Your task to perform on an android device: check battery use Image 0: 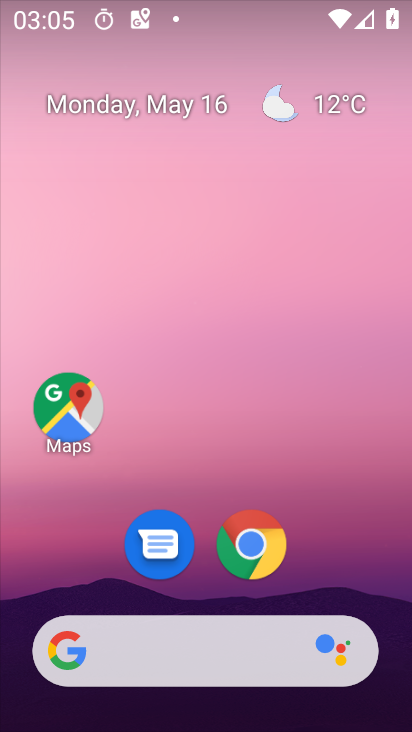
Step 0: drag from (217, 719) to (213, 224)
Your task to perform on an android device: check battery use Image 1: 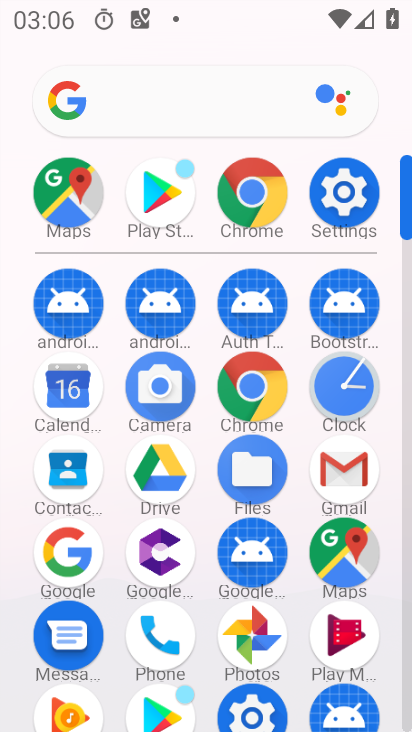
Step 1: click (345, 192)
Your task to perform on an android device: check battery use Image 2: 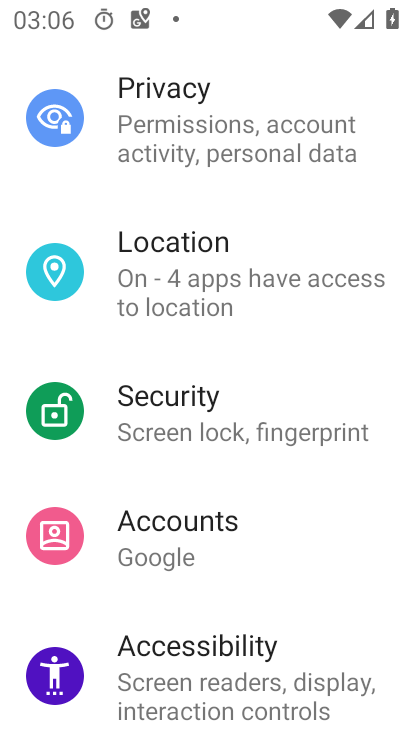
Step 2: drag from (216, 184) to (190, 582)
Your task to perform on an android device: check battery use Image 3: 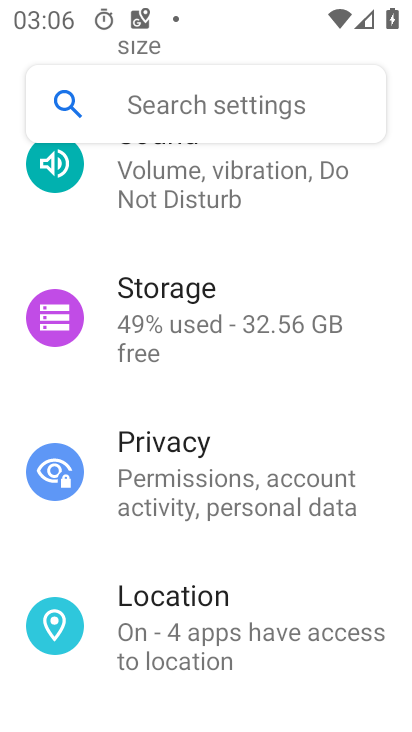
Step 3: drag from (223, 230) to (229, 506)
Your task to perform on an android device: check battery use Image 4: 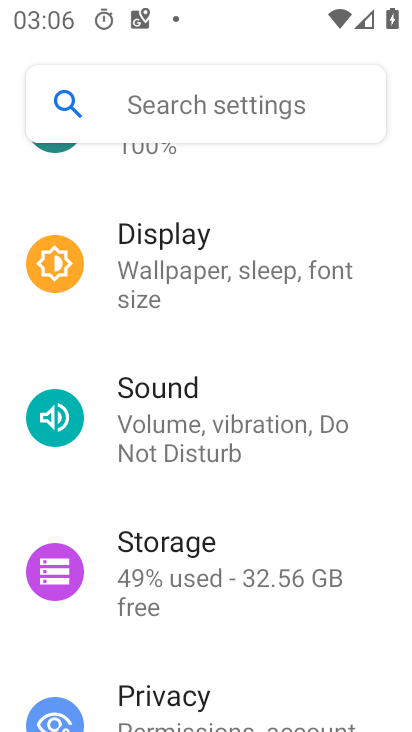
Step 4: drag from (239, 178) to (231, 515)
Your task to perform on an android device: check battery use Image 5: 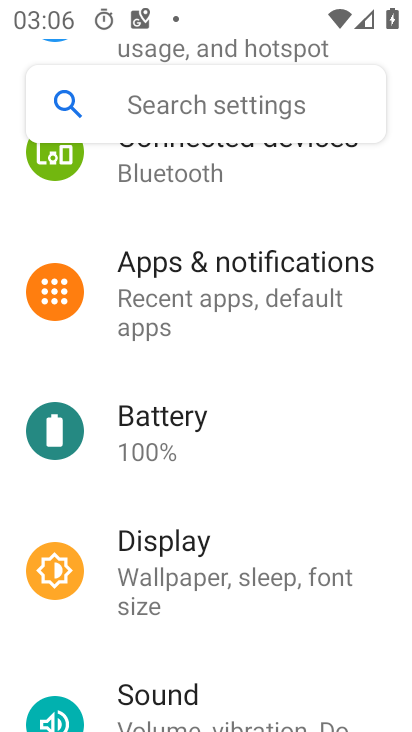
Step 5: click (154, 407)
Your task to perform on an android device: check battery use Image 6: 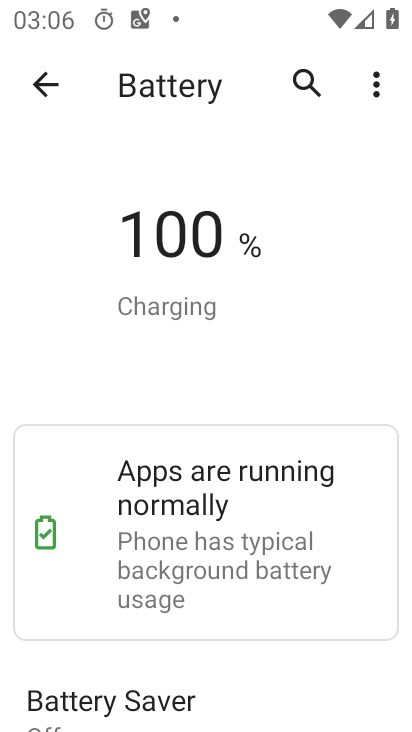
Step 6: click (376, 89)
Your task to perform on an android device: check battery use Image 7: 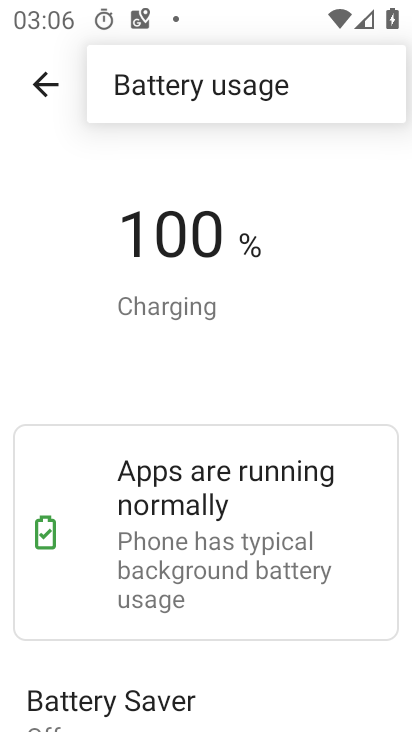
Step 7: click (217, 85)
Your task to perform on an android device: check battery use Image 8: 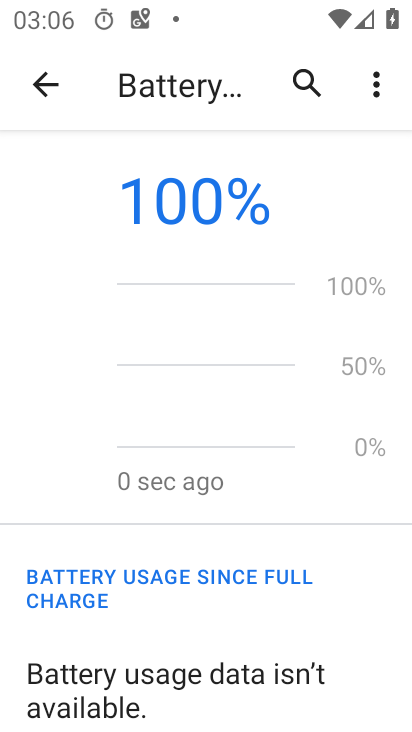
Step 8: task complete